Your task to perform on an android device: install app "Reddit" Image 0: 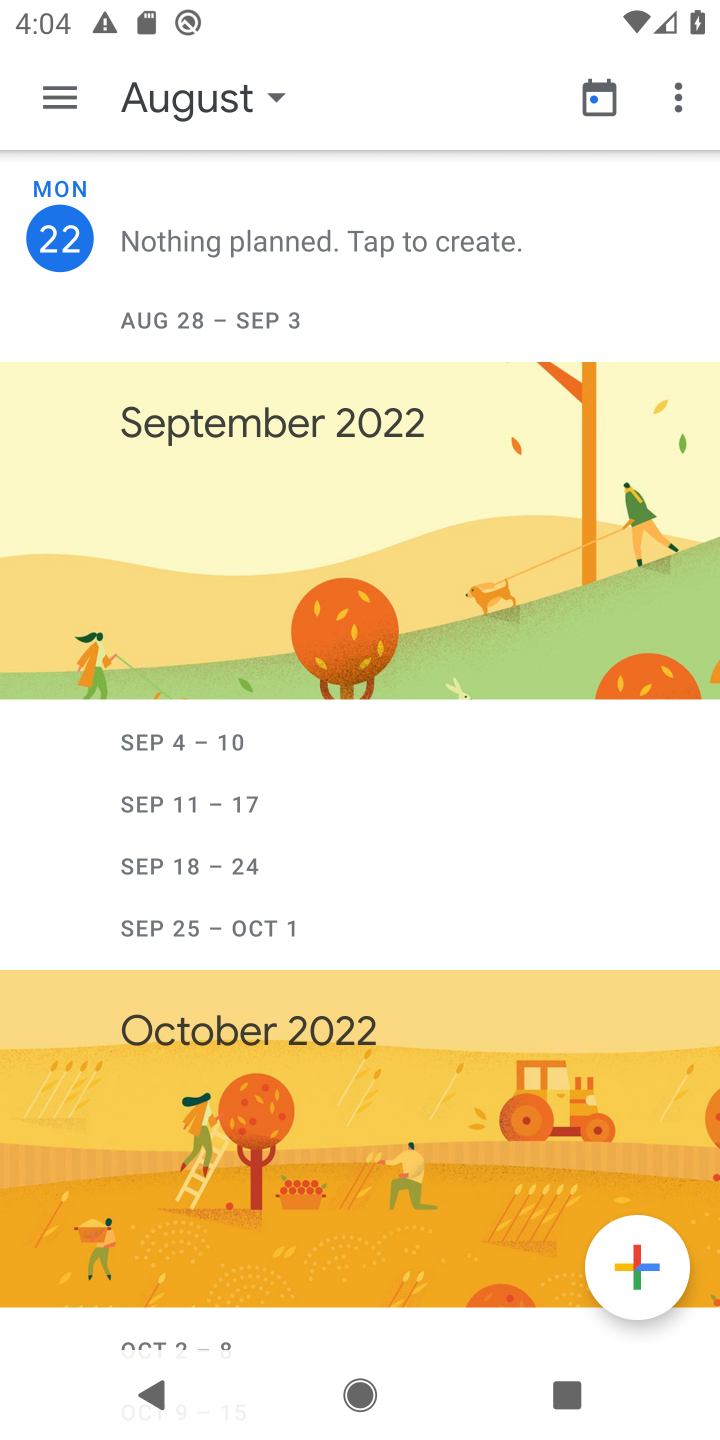
Step 0: press home button
Your task to perform on an android device: install app "Reddit" Image 1: 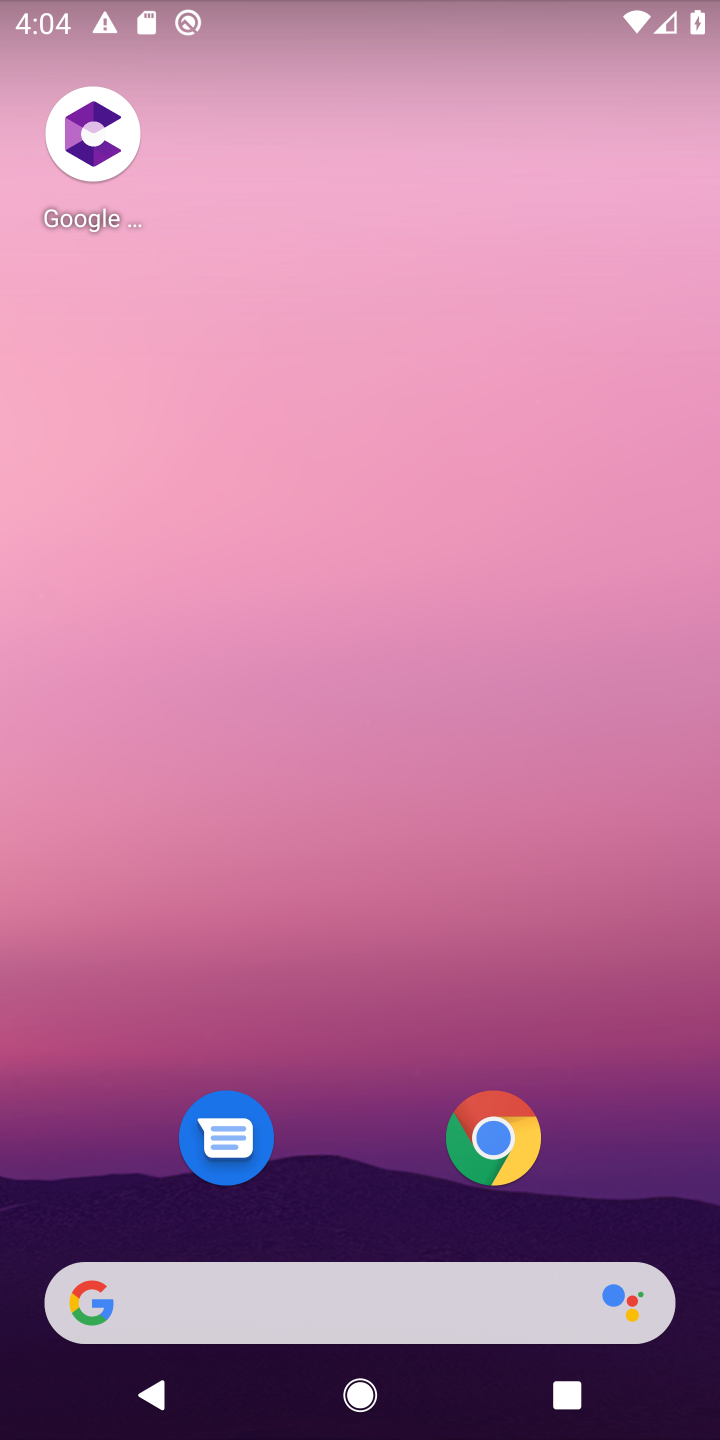
Step 1: drag from (382, 1272) to (359, 229)
Your task to perform on an android device: install app "Reddit" Image 2: 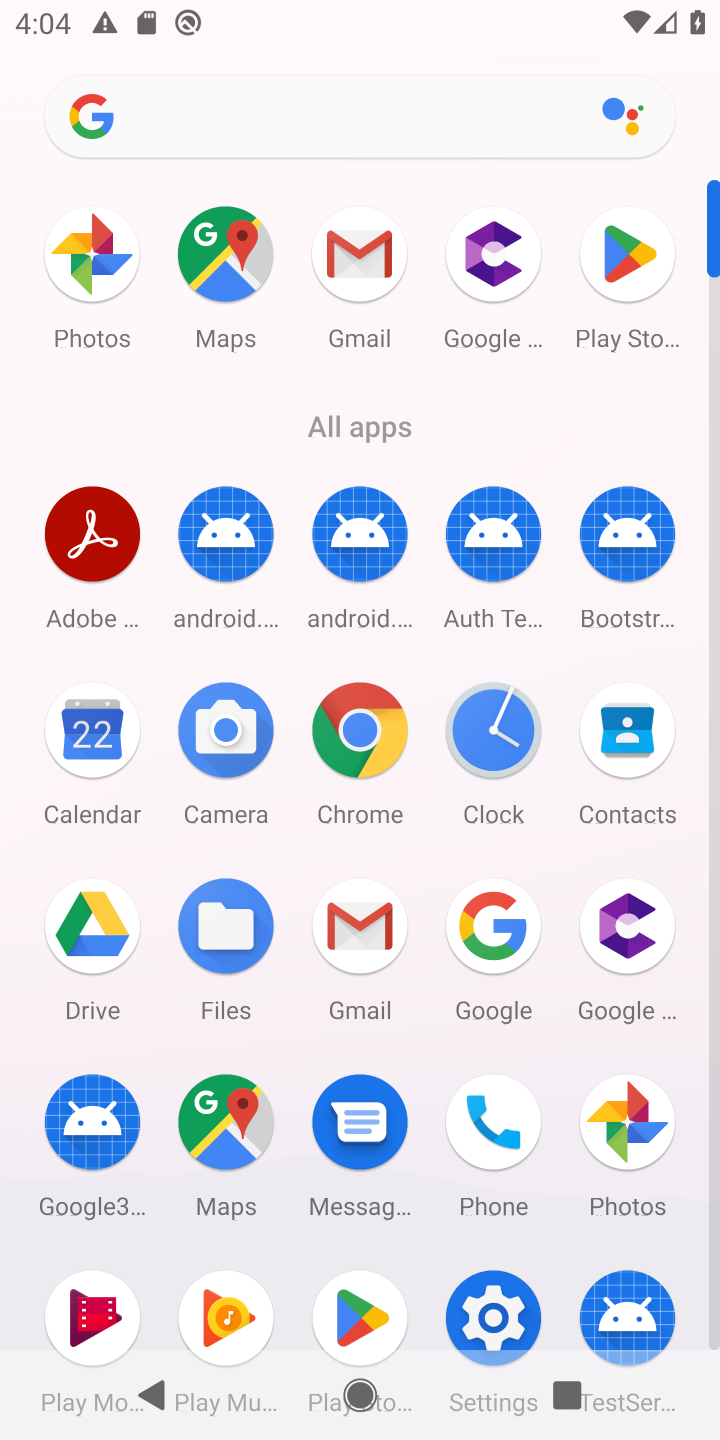
Step 2: click (624, 270)
Your task to perform on an android device: install app "Reddit" Image 3: 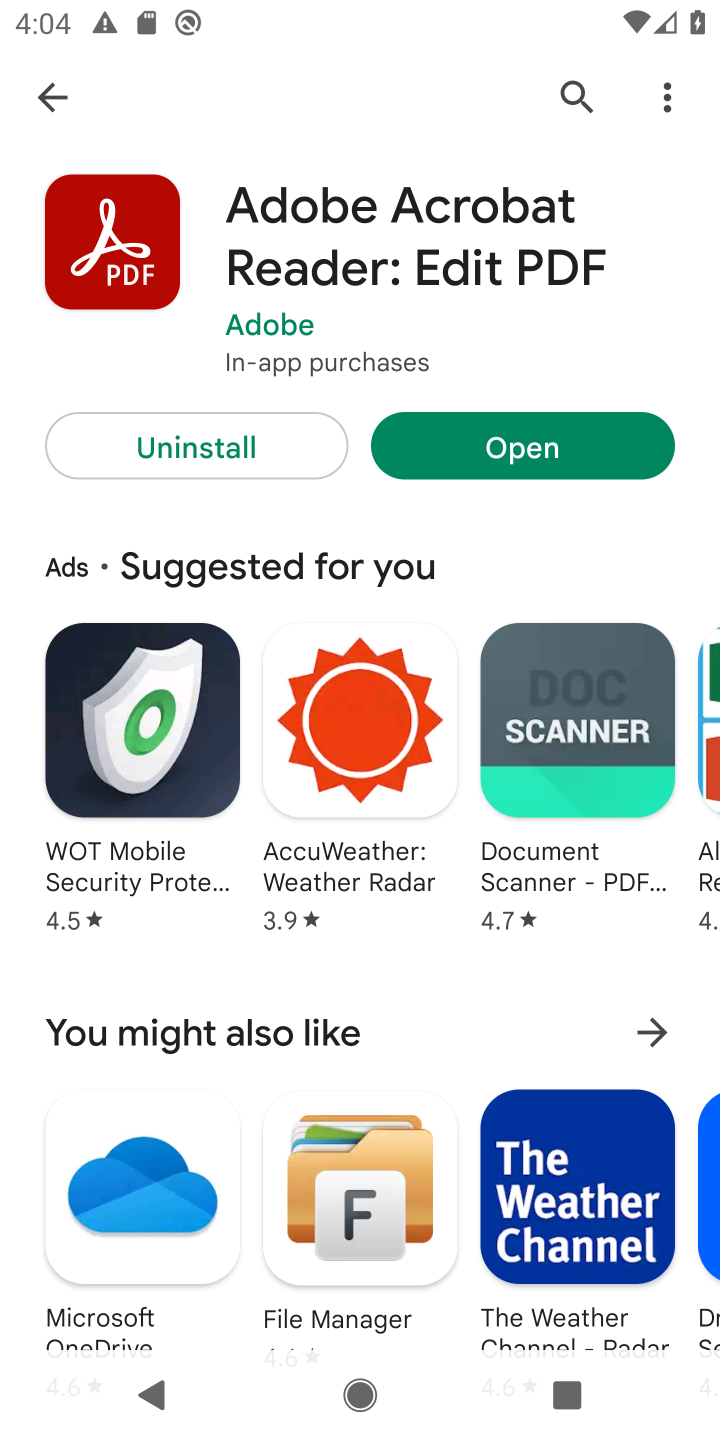
Step 3: click (562, 97)
Your task to perform on an android device: install app "Reddit" Image 4: 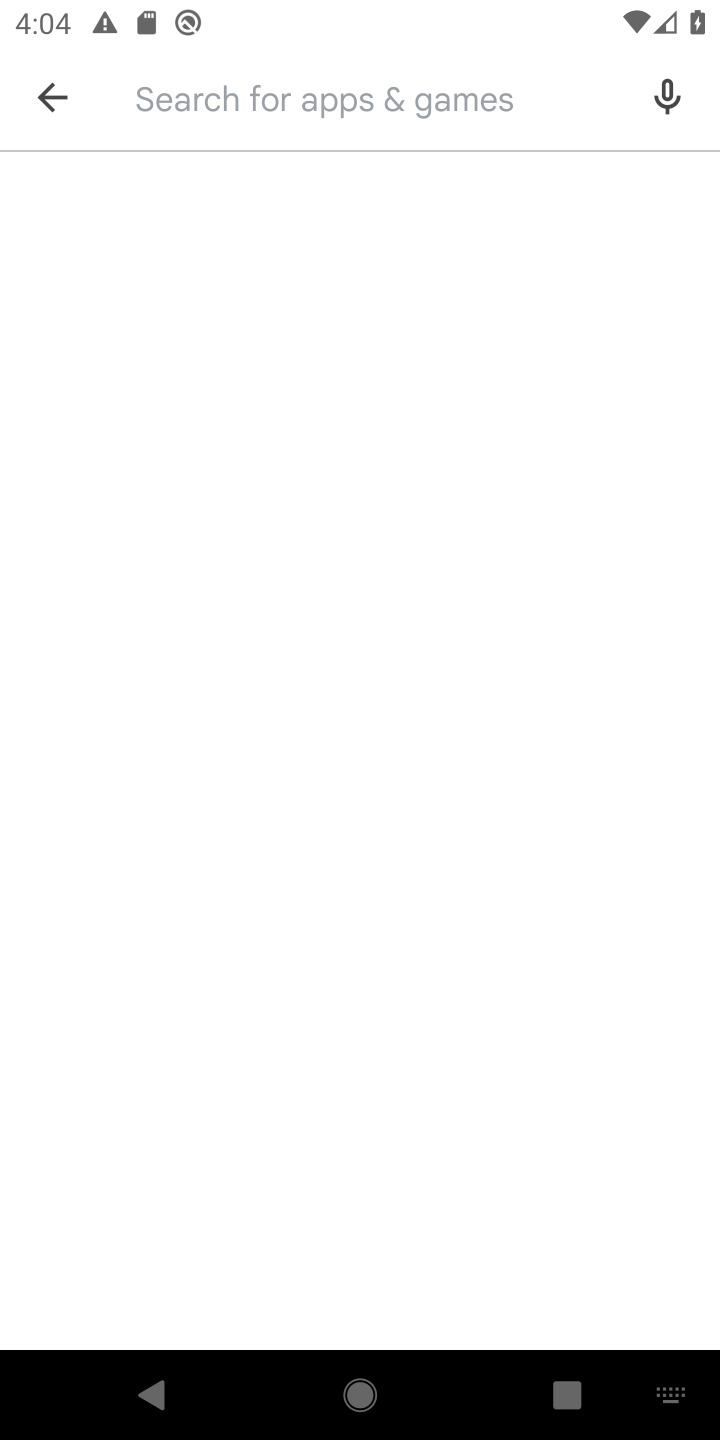
Step 4: type "Reddit"
Your task to perform on an android device: install app "Reddit" Image 5: 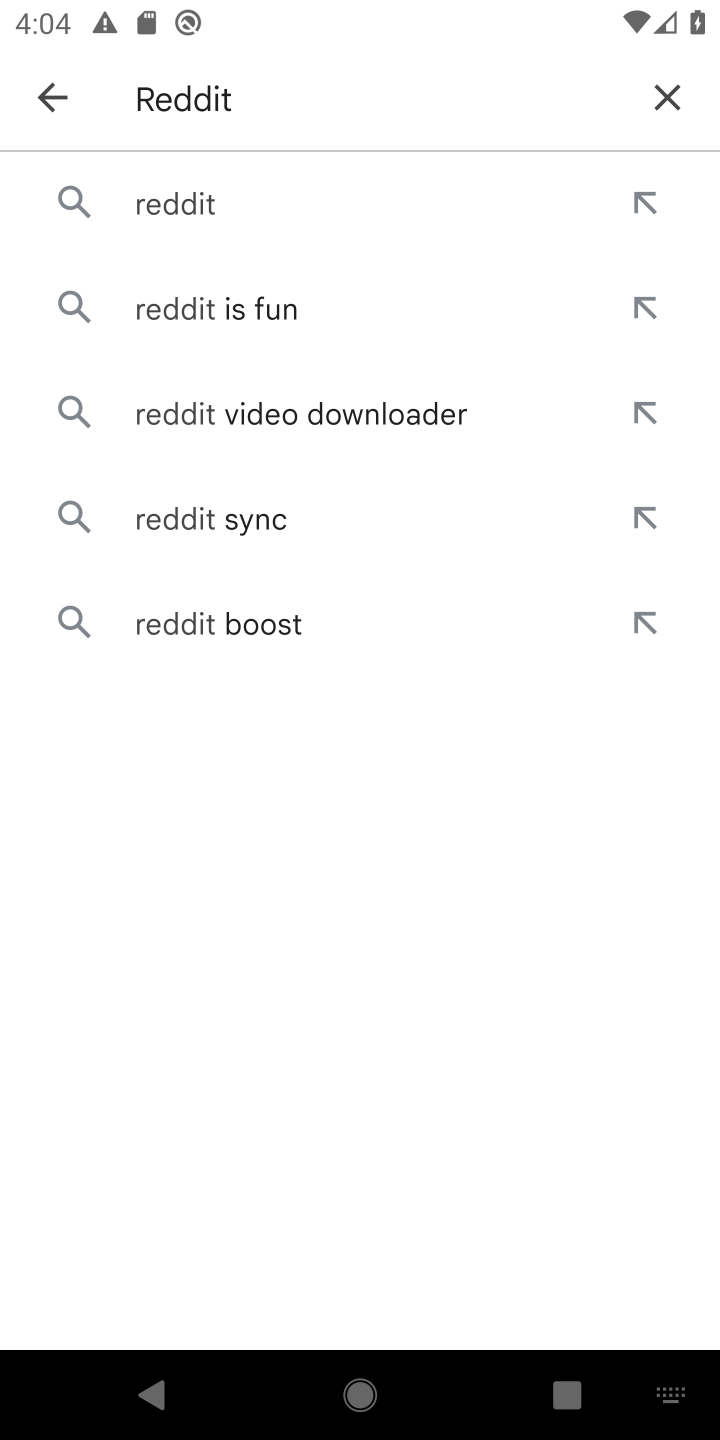
Step 5: click (161, 212)
Your task to perform on an android device: install app "Reddit" Image 6: 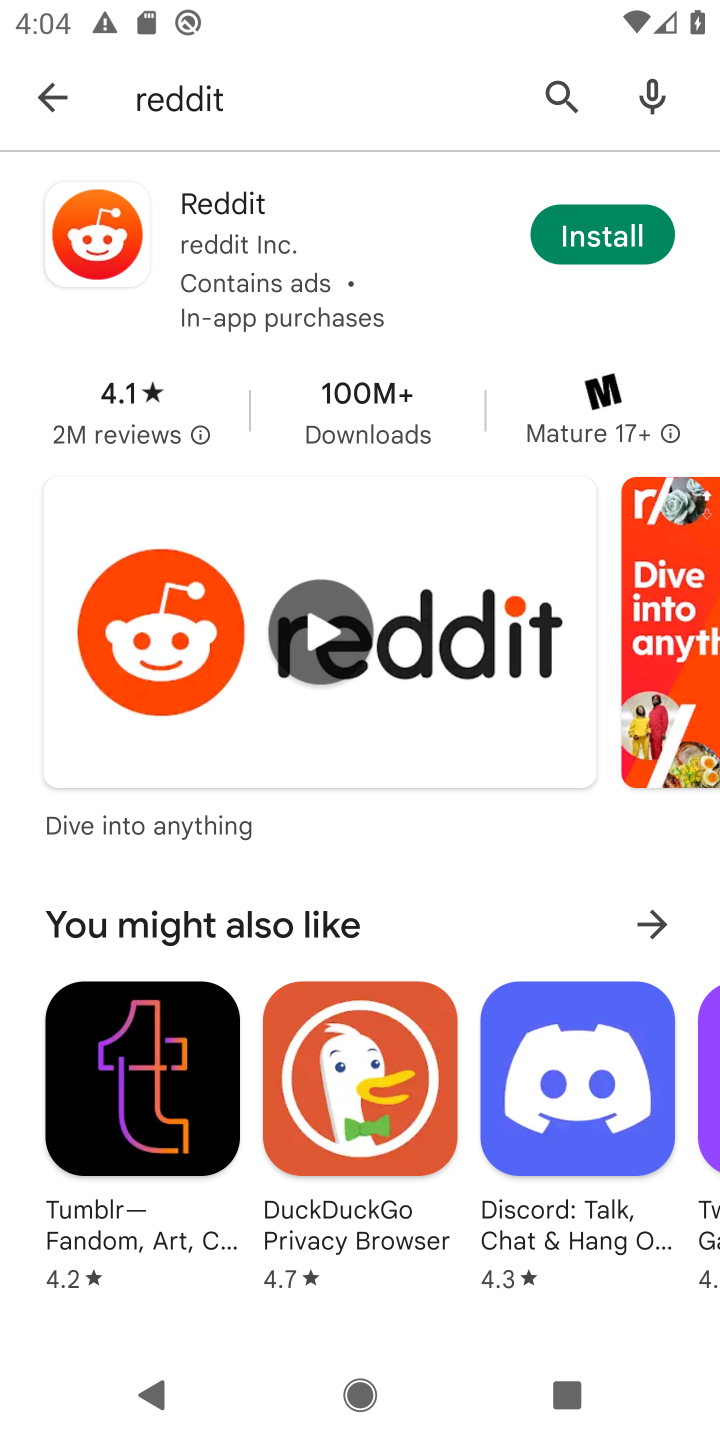
Step 6: click (608, 252)
Your task to perform on an android device: install app "Reddit" Image 7: 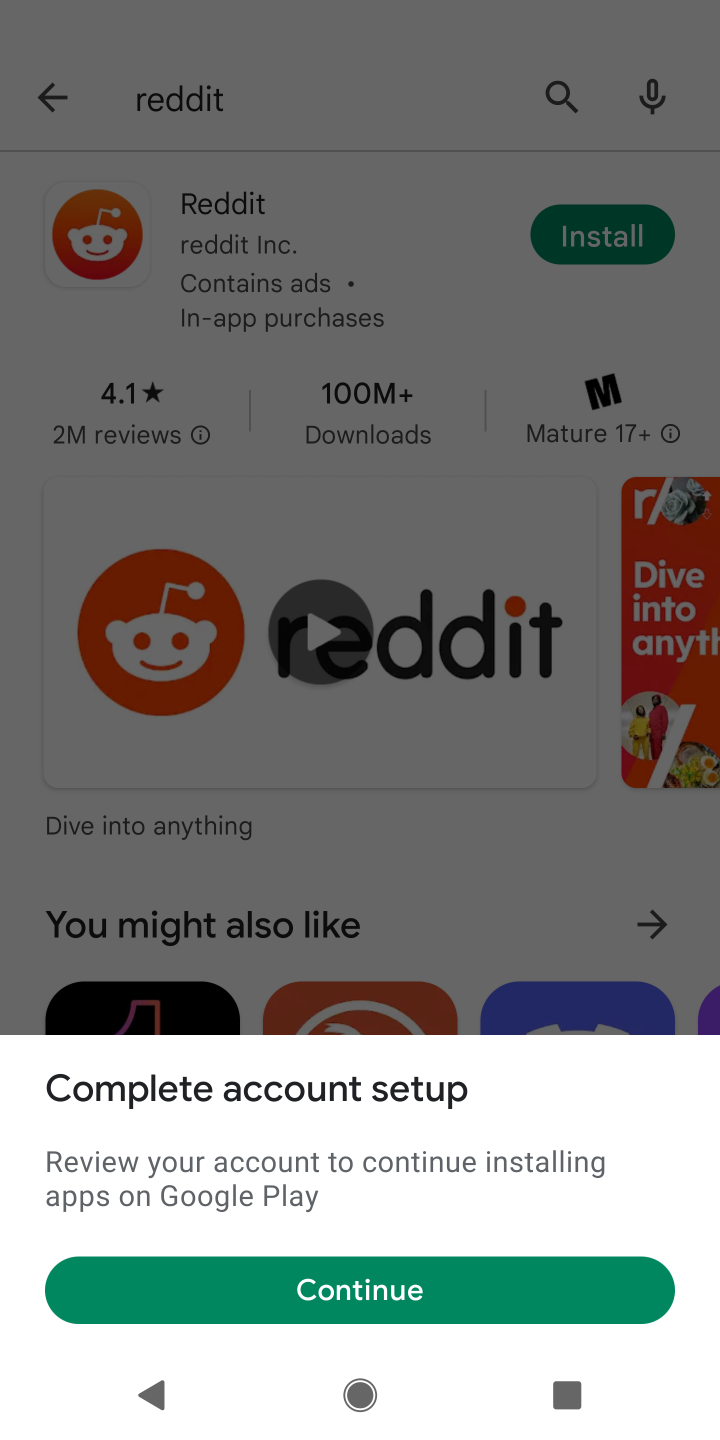
Step 7: click (371, 1278)
Your task to perform on an android device: install app "Reddit" Image 8: 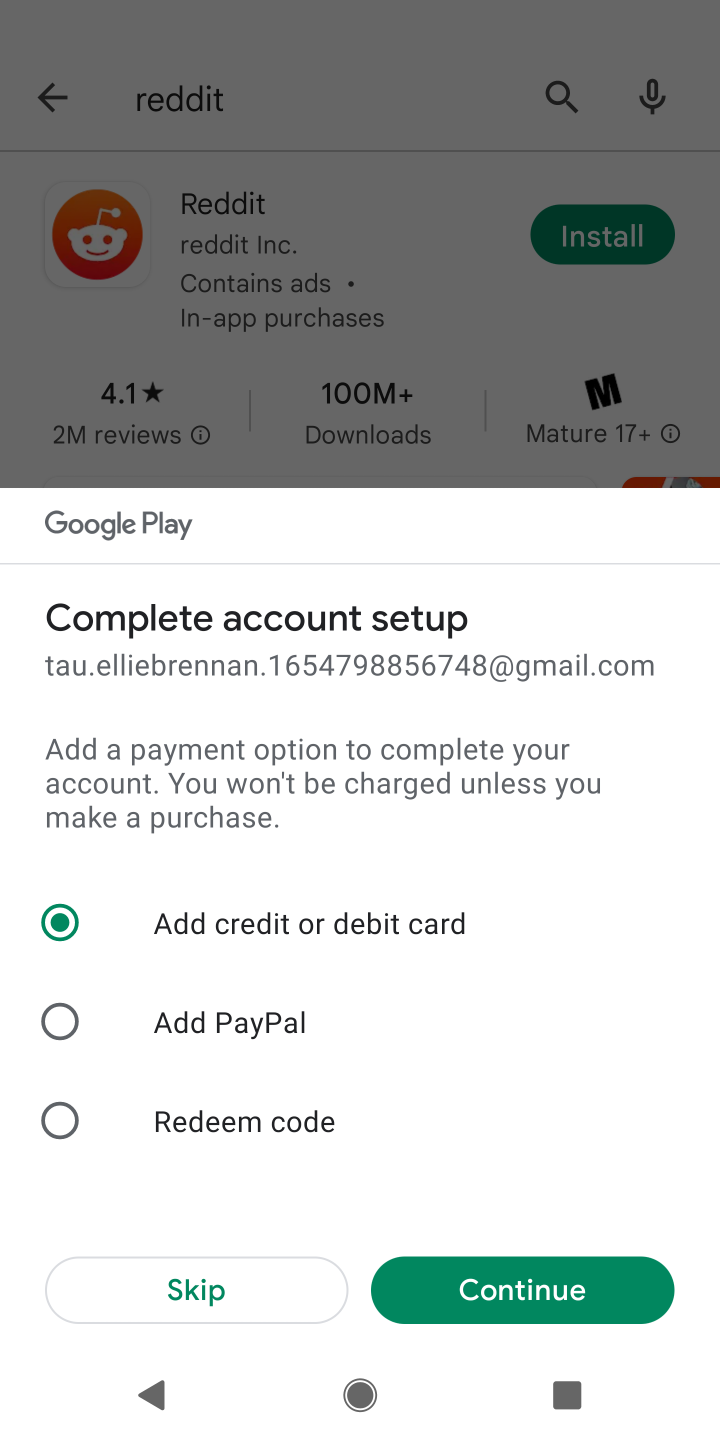
Step 8: click (217, 1299)
Your task to perform on an android device: install app "Reddit" Image 9: 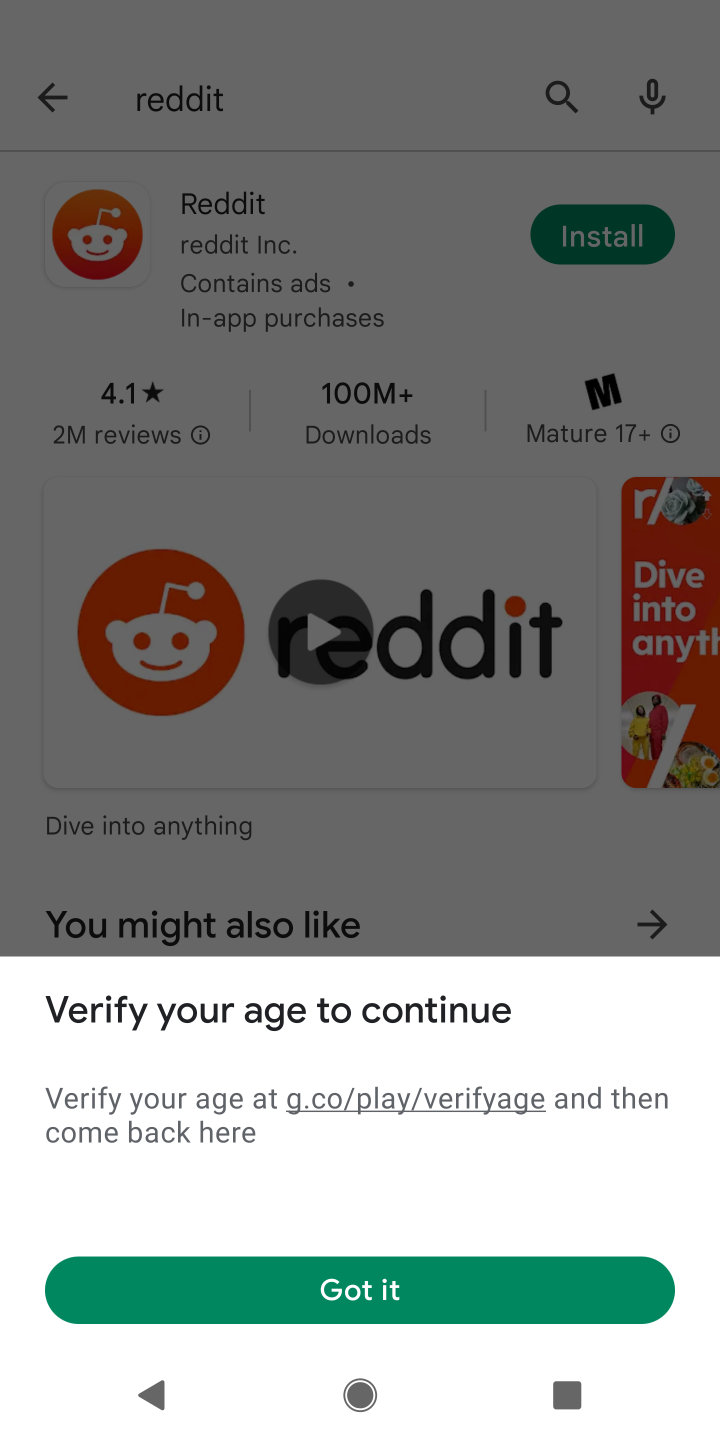
Step 9: click (370, 1309)
Your task to perform on an android device: install app "Reddit" Image 10: 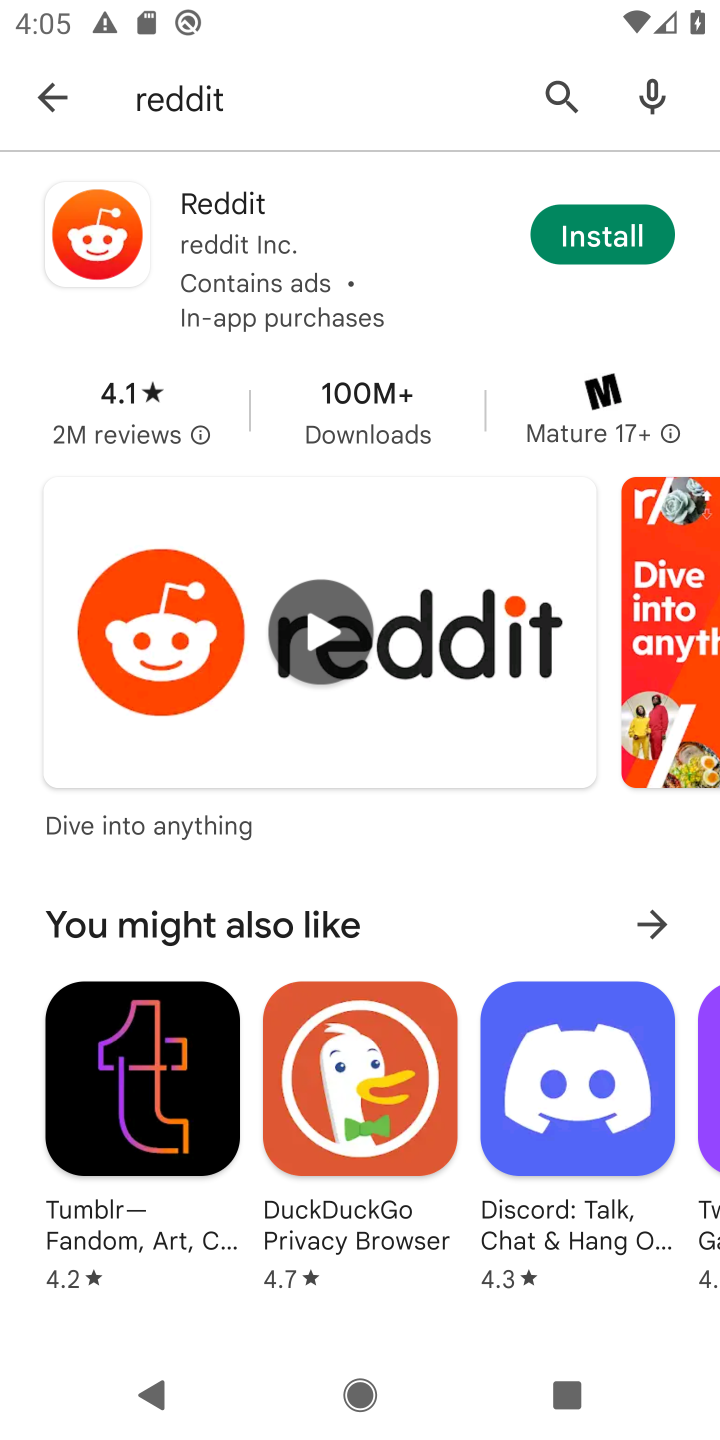
Step 10: click (578, 229)
Your task to perform on an android device: install app "Reddit" Image 11: 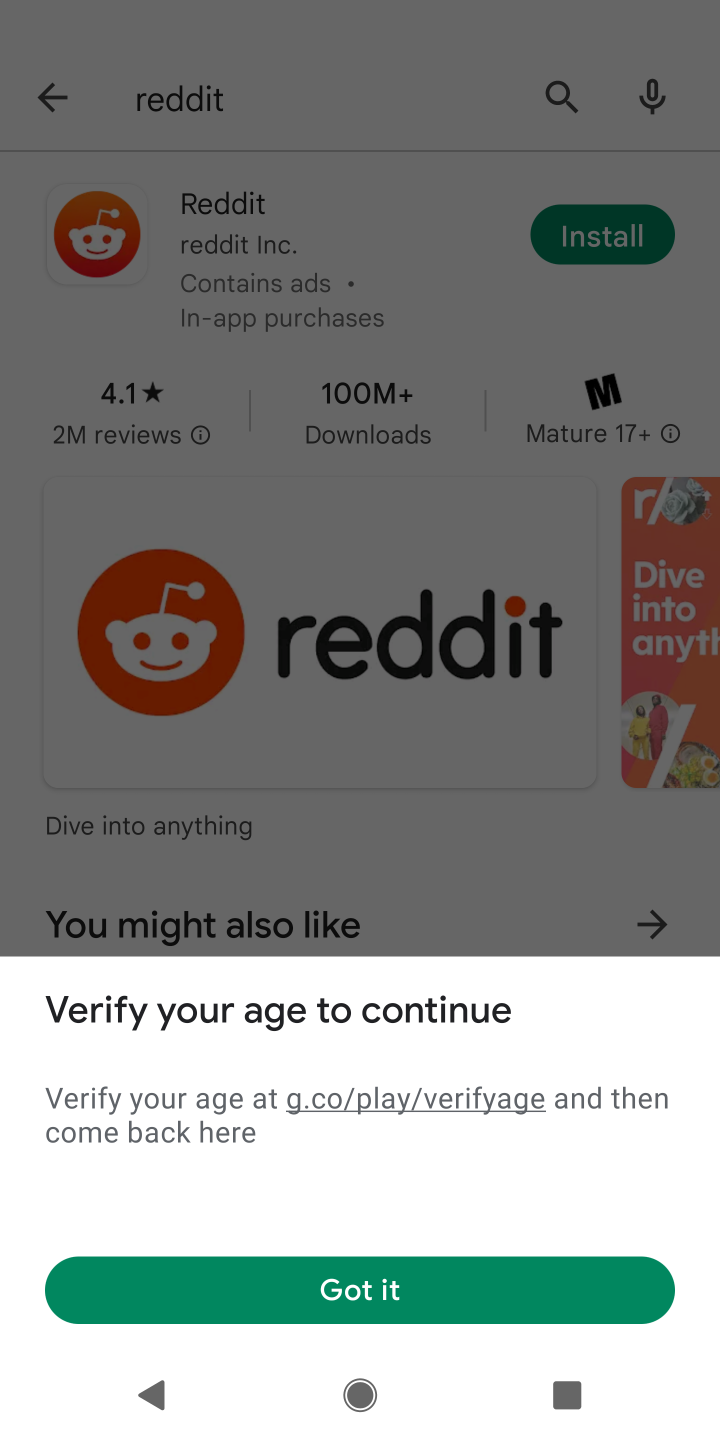
Step 11: click (353, 1284)
Your task to perform on an android device: install app "Reddit" Image 12: 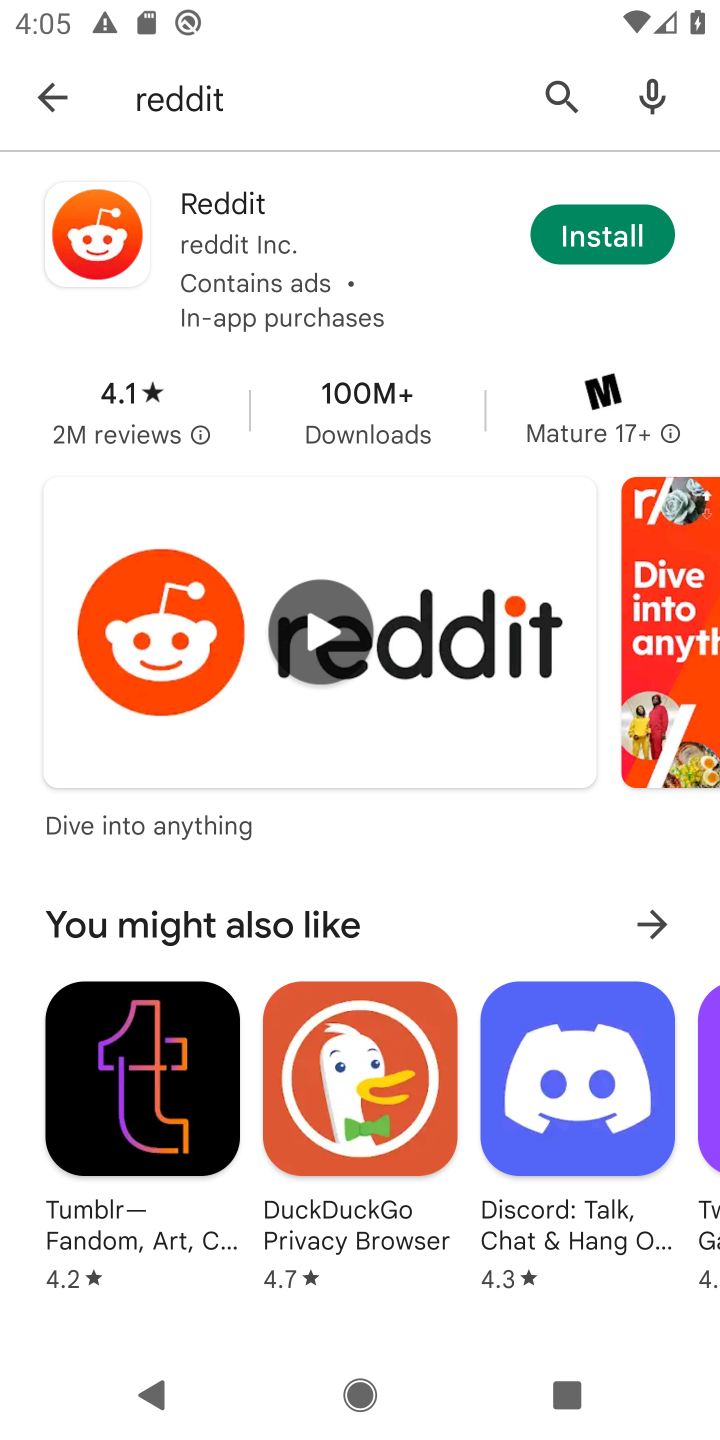
Step 12: task complete